Your task to perform on an android device: turn on showing notifications on the lock screen Image 0: 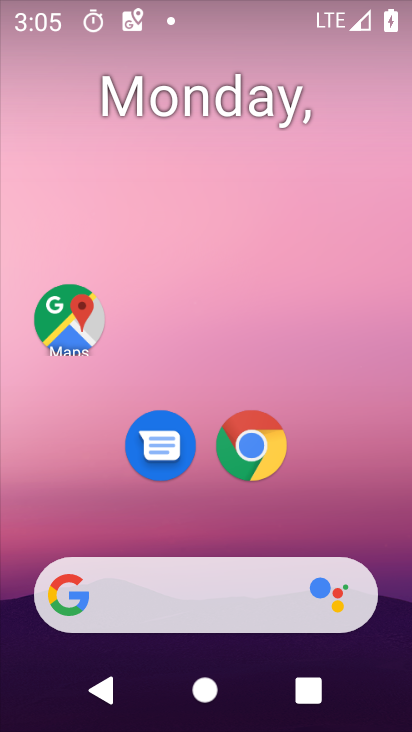
Step 0: drag from (170, 612) to (223, 202)
Your task to perform on an android device: turn on showing notifications on the lock screen Image 1: 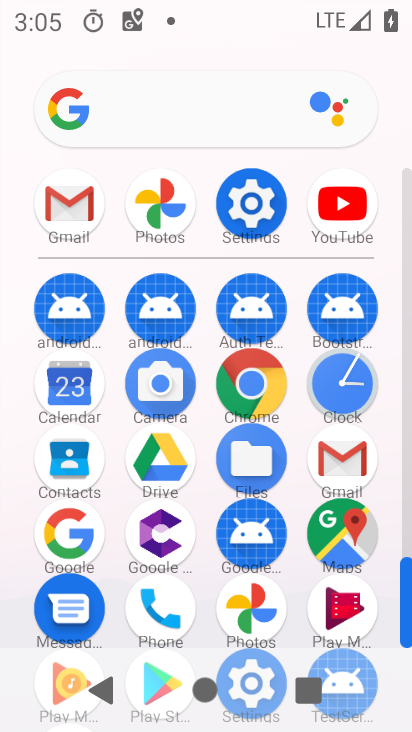
Step 1: click (253, 174)
Your task to perform on an android device: turn on showing notifications on the lock screen Image 2: 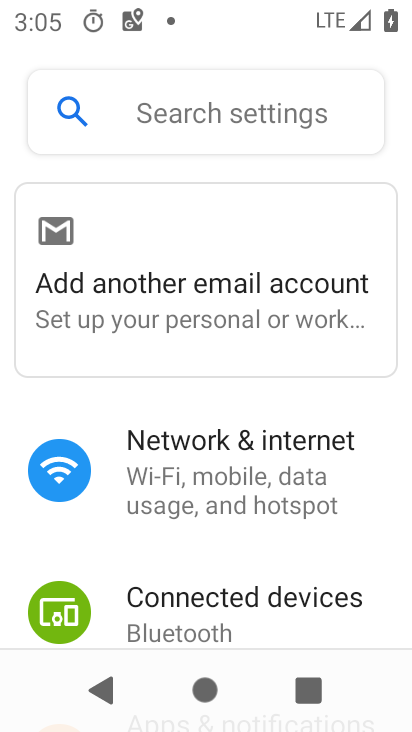
Step 2: drag from (212, 517) to (172, 154)
Your task to perform on an android device: turn on showing notifications on the lock screen Image 3: 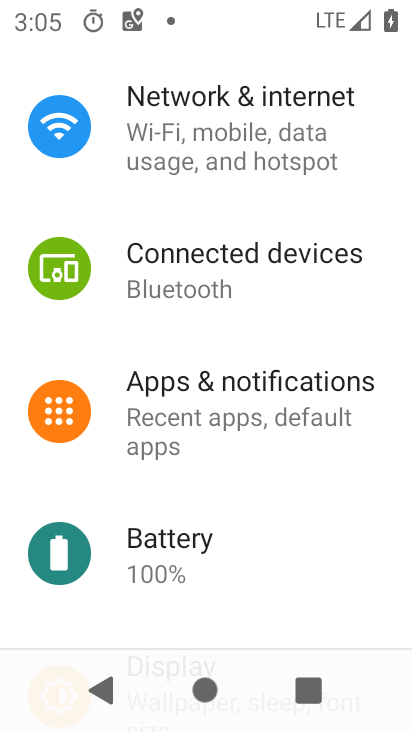
Step 3: click (222, 409)
Your task to perform on an android device: turn on showing notifications on the lock screen Image 4: 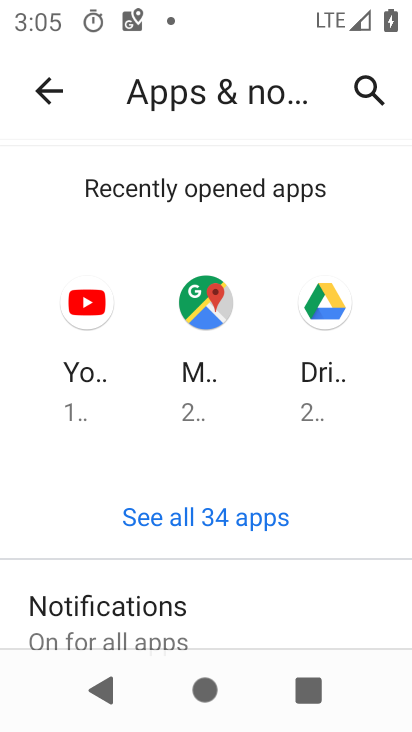
Step 4: click (190, 596)
Your task to perform on an android device: turn on showing notifications on the lock screen Image 5: 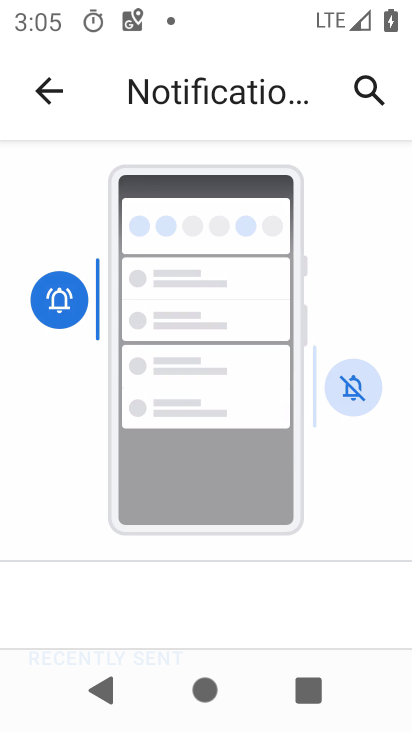
Step 5: drag from (221, 552) to (209, 173)
Your task to perform on an android device: turn on showing notifications on the lock screen Image 6: 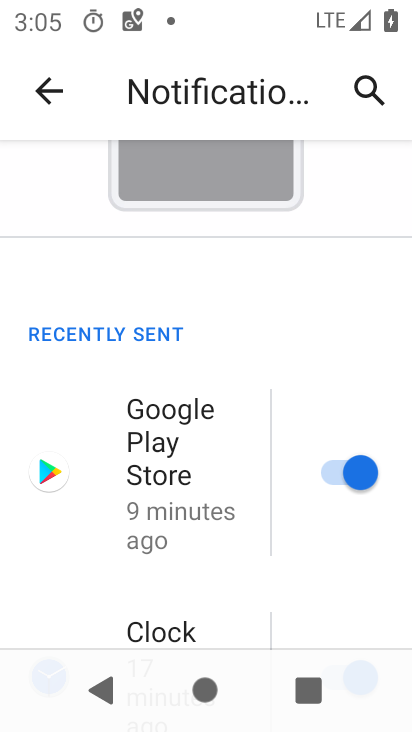
Step 6: drag from (254, 662) to (210, 318)
Your task to perform on an android device: turn on showing notifications on the lock screen Image 7: 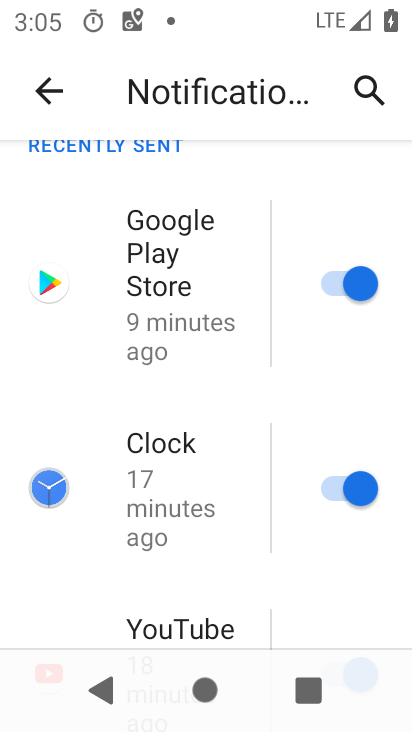
Step 7: drag from (233, 619) to (169, 156)
Your task to perform on an android device: turn on showing notifications on the lock screen Image 8: 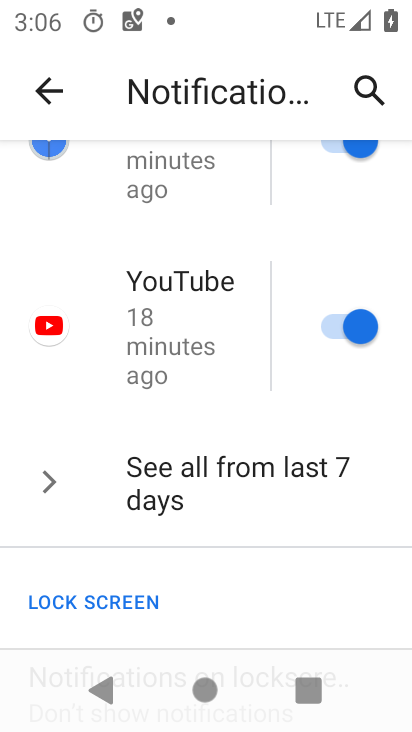
Step 8: drag from (179, 600) to (142, 81)
Your task to perform on an android device: turn on showing notifications on the lock screen Image 9: 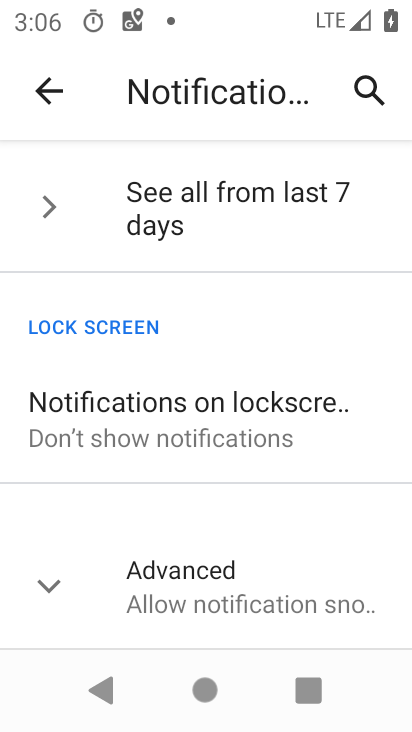
Step 9: click (208, 472)
Your task to perform on an android device: turn on showing notifications on the lock screen Image 10: 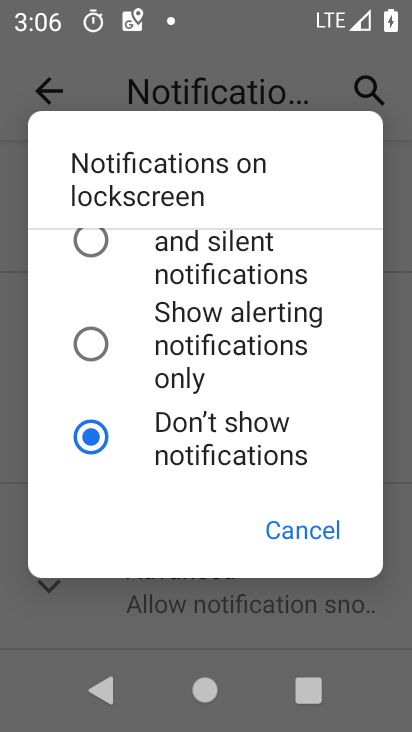
Step 10: drag from (185, 253) to (194, 484)
Your task to perform on an android device: turn on showing notifications on the lock screen Image 11: 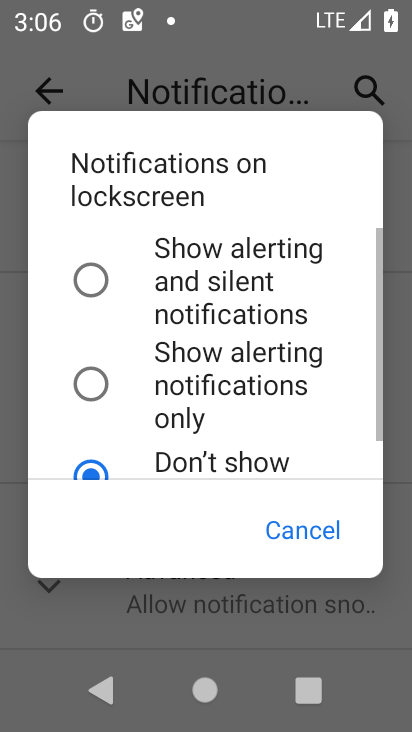
Step 11: click (156, 291)
Your task to perform on an android device: turn on showing notifications on the lock screen Image 12: 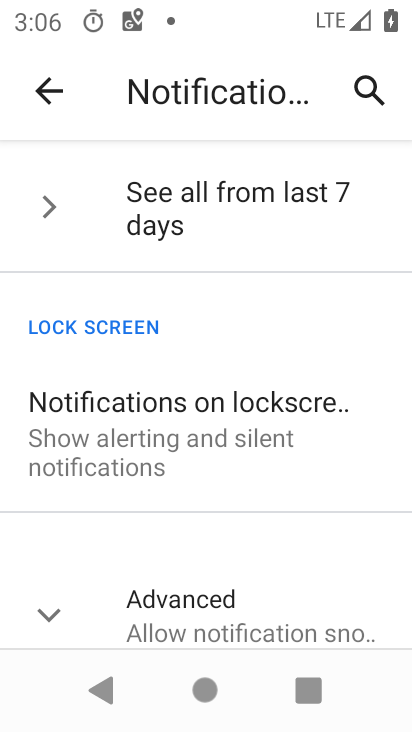
Step 12: task complete